Your task to perform on an android device: Go to wifi settings Image 0: 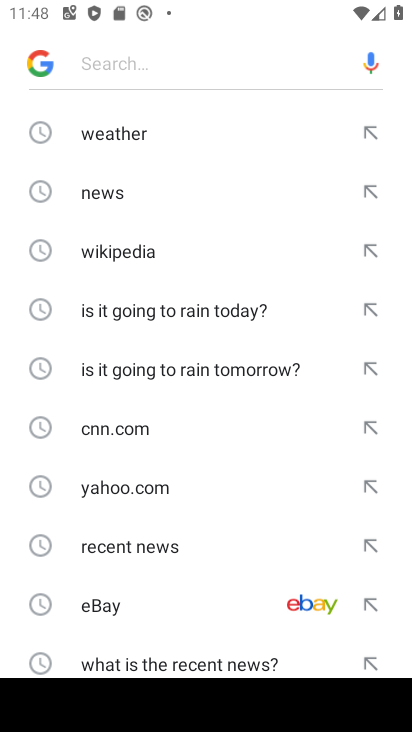
Step 0: press home button
Your task to perform on an android device: Go to wifi settings Image 1: 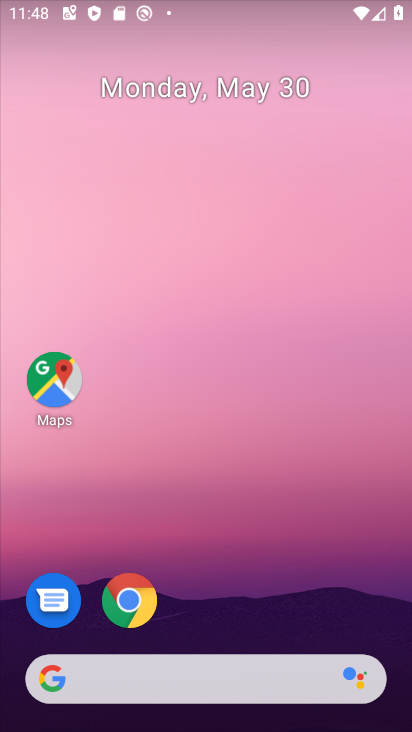
Step 1: drag from (223, 728) to (193, 68)
Your task to perform on an android device: Go to wifi settings Image 2: 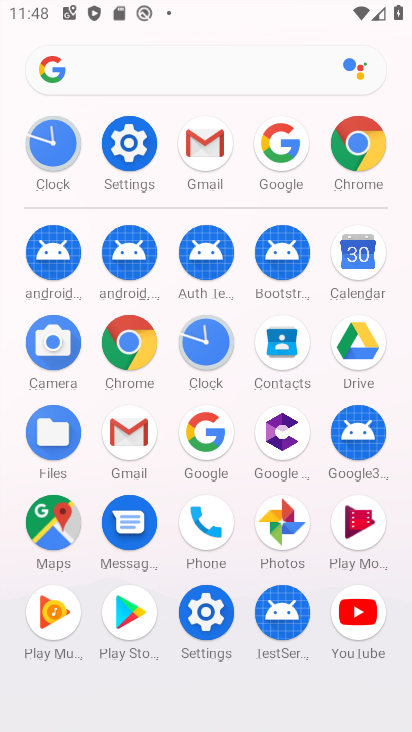
Step 2: click (125, 147)
Your task to perform on an android device: Go to wifi settings Image 3: 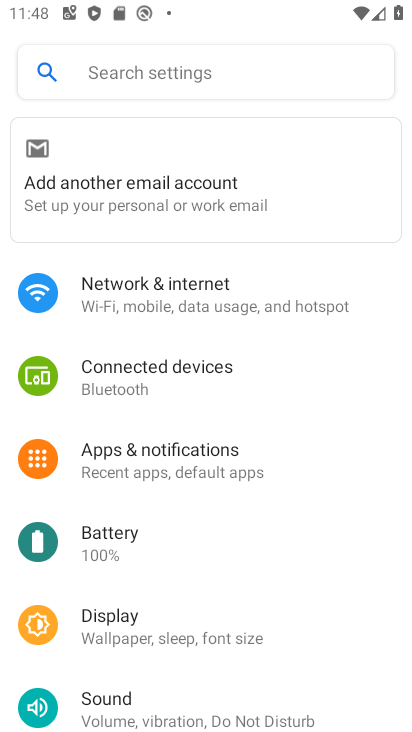
Step 3: click (118, 293)
Your task to perform on an android device: Go to wifi settings Image 4: 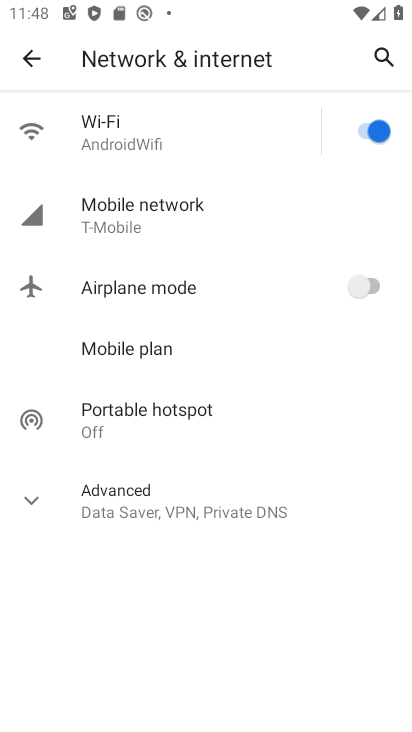
Step 4: click (109, 134)
Your task to perform on an android device: Go to wifi settings Image 5: 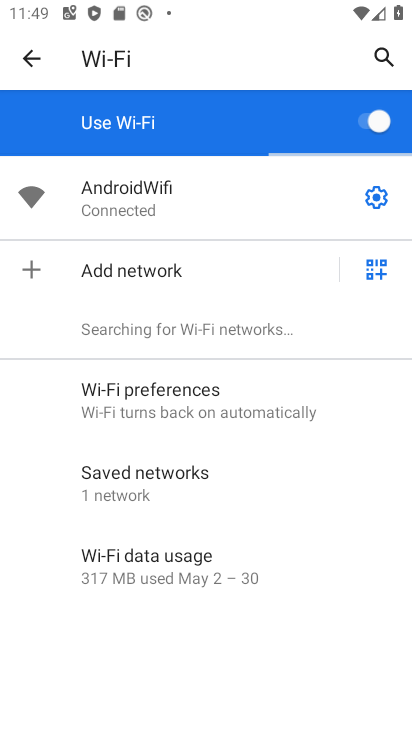
Step 5: task complete